Your task to perform on an android device: toggle pop-ups in chrome Image 0: 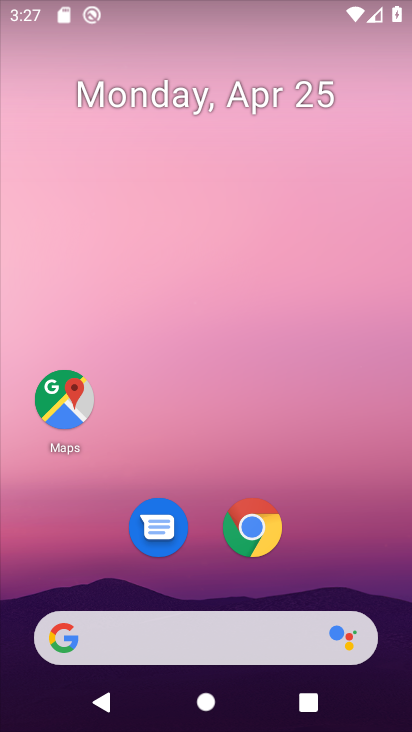
Step 0: click (247, 537)
Your task to perform on an android device: toggle pop-ups in chrome Image 1: 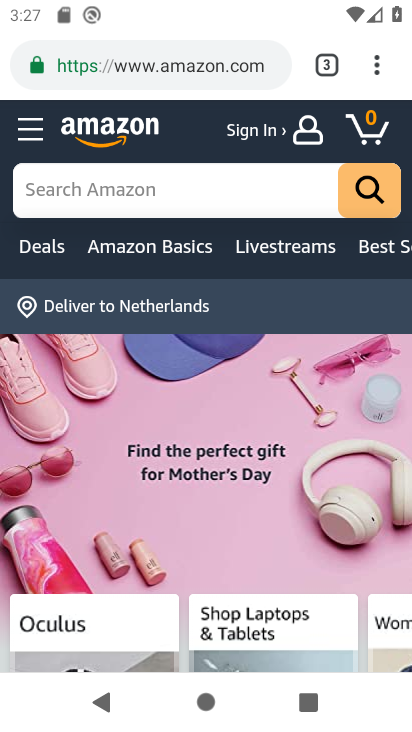
Step 1: click (376, 74)
Your task to perform on an android device: toggle pop-ups in chrome Image 2: 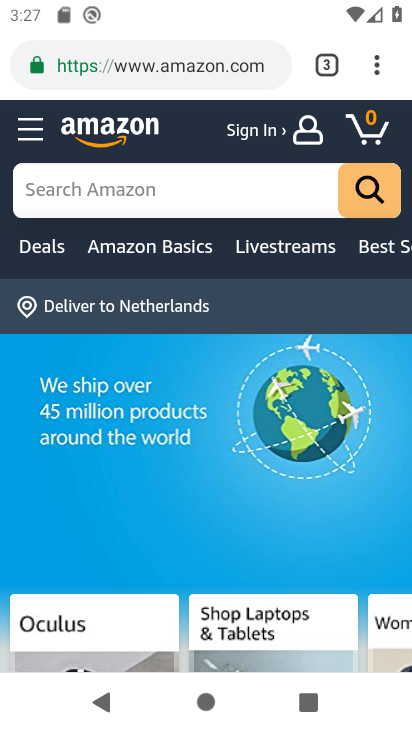
Step 2: click (378, 71)
Your task to perform on an android device: toggle pop-ups in chrome Image 3: 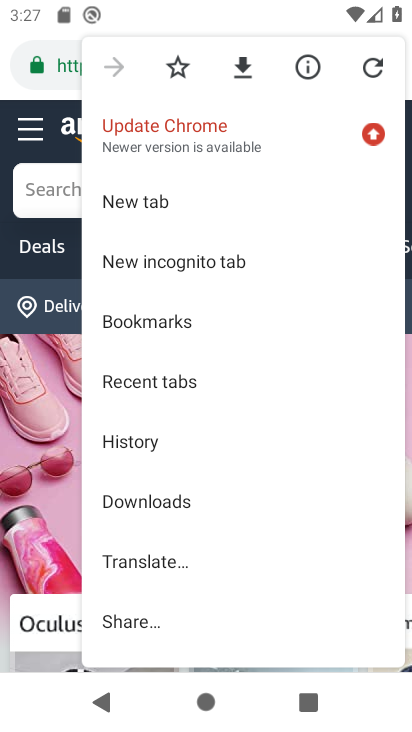
Step 3: drag from (188, 537) to (343, 178)
Your task to perform on an android device: toggle pop-ups in chrome Image 4: 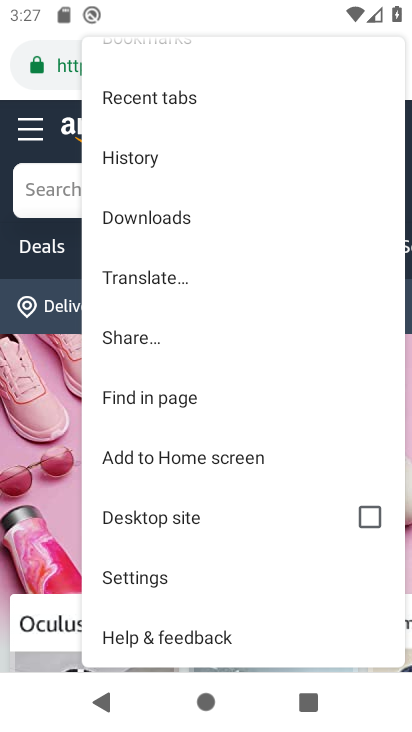
Step 4: click (155, 572)
Your task to perform on an android device: toggle pop-ups in chrome Image 5: 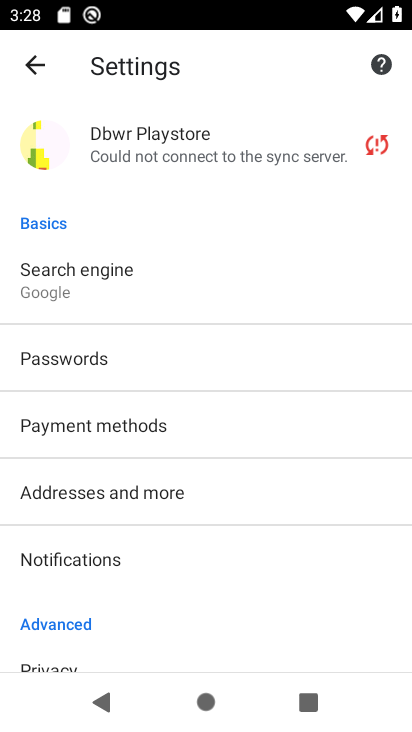
Step 5: drag from (253, 583) to (352, 221)
Your task to perform on an android device: toggle pop-ups in chrome Image 6: 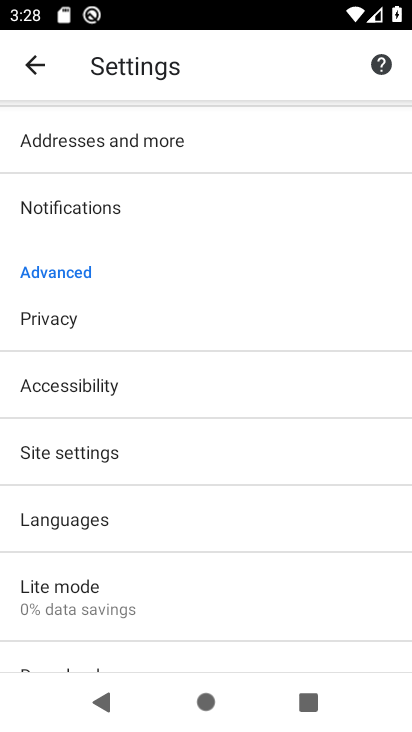
Step 6: click (72, 455)
Your task to perform on an android device: toggle pop-ups in chrome Image 7: 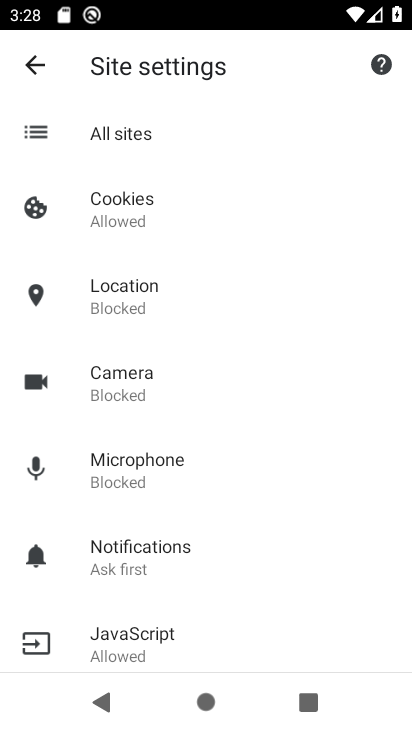
Step 7: drag from (226, 564) to (296, 289)
Your task to perform on an android device: toggle pop-ups in chrome Image 8: 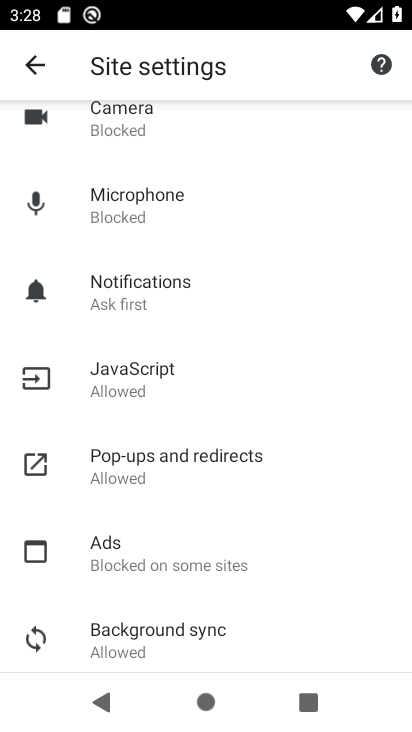
Step 8: click (128, 460)
Your task to perform on an android device: toggle pop-ups in chrome Image 9: 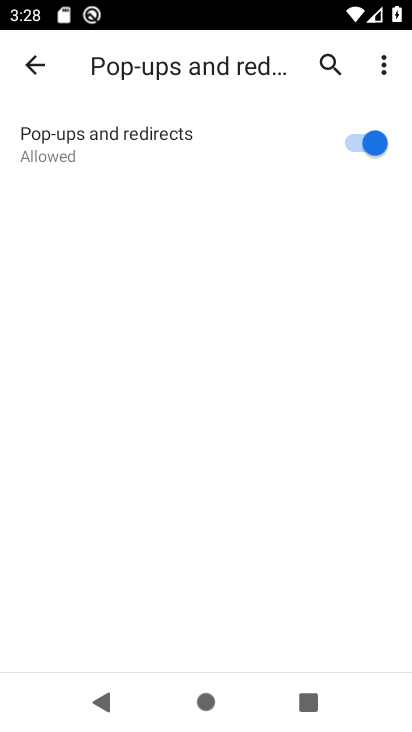
Step 9: click (353, 136)
Your task to perform on an android device: toggle pop-ups in chrome Image 10: 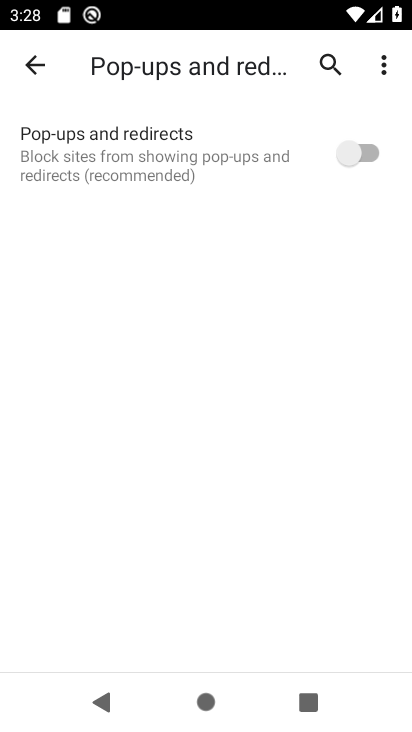
Step 10: task complete